Your task to perform on an android device: Play the last video I watched on Youtube Image 0: 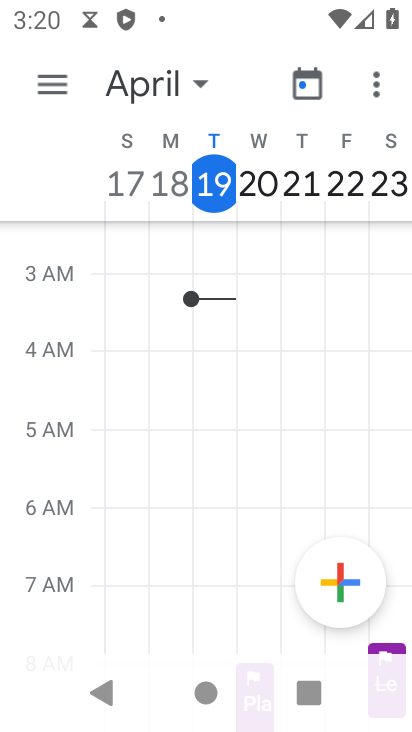
Step 0: press back button
Your task to perform on an android device: Play the last video I watched on Youtube Image 1: 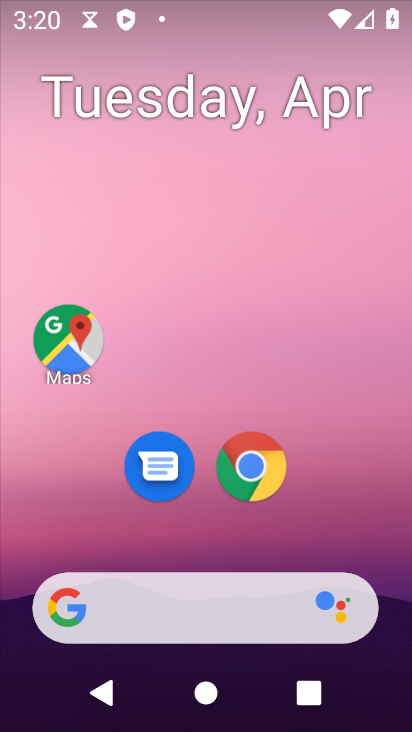
Step 1: drag from (323, 557) to (280, 36)
Your task to perform on an android device: Play the last video I watched on Youtube Image 2: 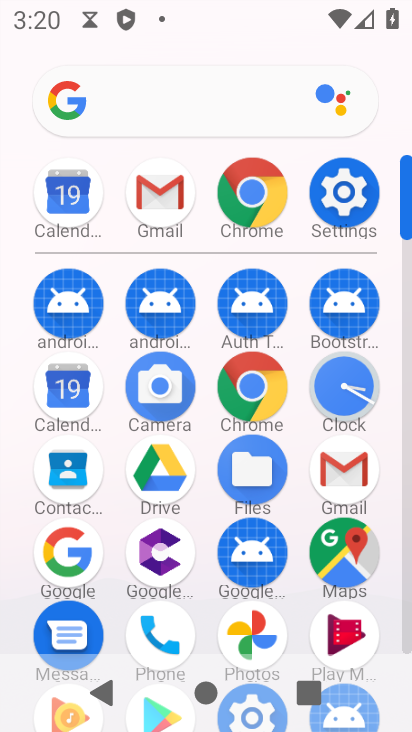
Step 2: drag from (11, 563) to (15, 204)
Your task to perform on an android device: Play the last video I watched on Youtube Image 3: 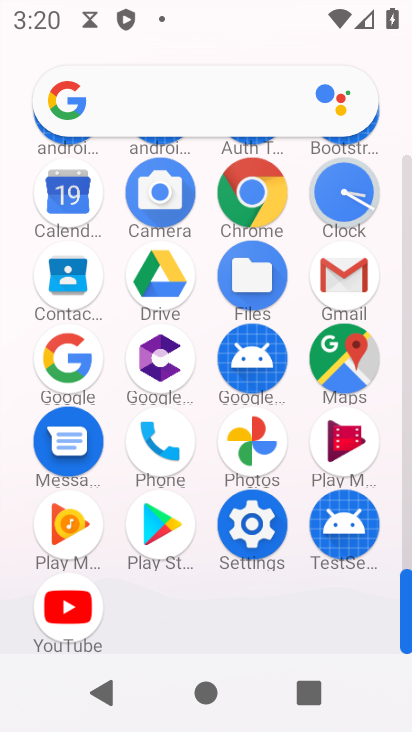
Step 3: click (59, 609)
Your task to perform on an android device: Play the last video I watched on Youtube Image 4: 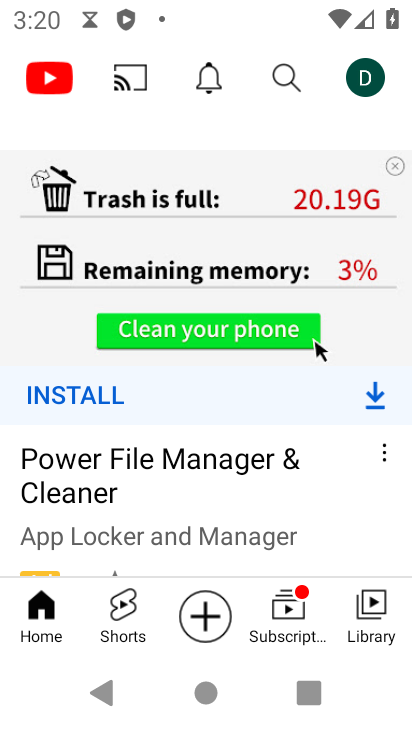
Step 4: click (373, 625)
Your task to perform on an android device: Play the last video I watched on Youtube Image 5: 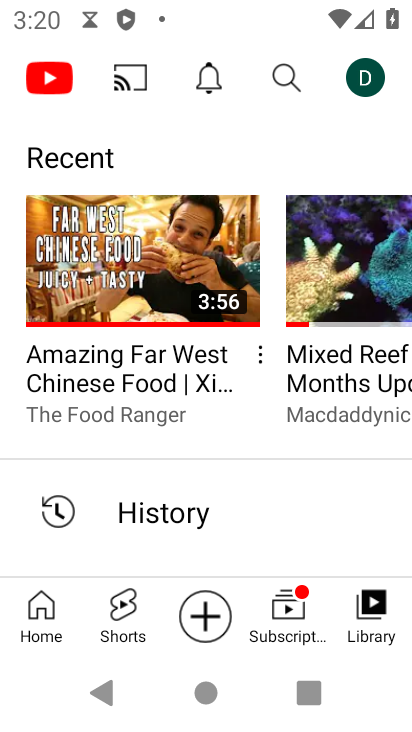
Step 5: click (183, 279)
Your task to perform on an android device: Play the last video I watched on Youtube Image 6: 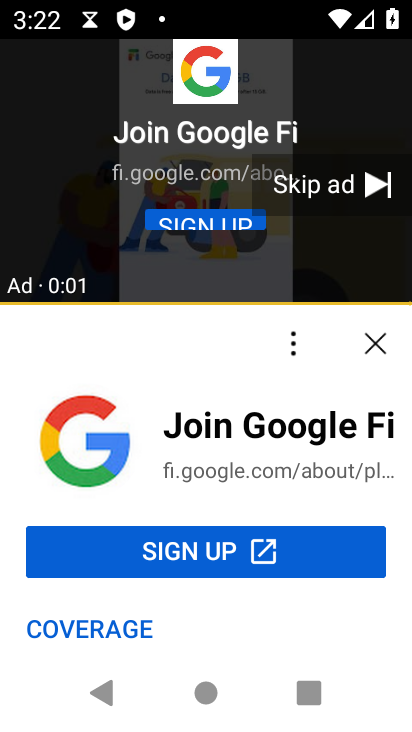
Step 6: click (311, 189)
Your task to perform on an android device: Play the last video I watched on Youtube Image 7: 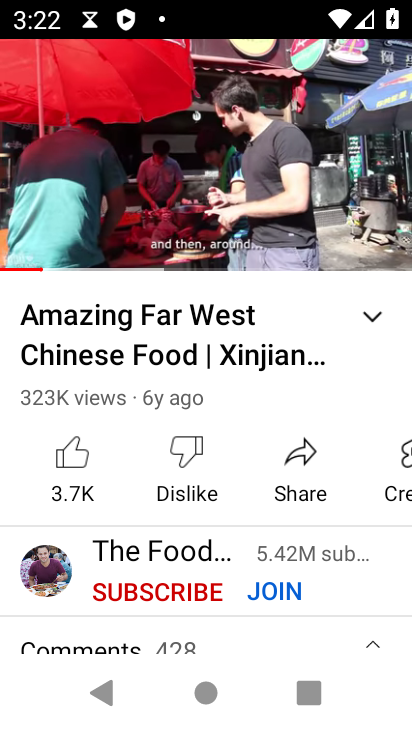
Step 7: task complete